Your task to perform on an android device: check battery use Image 0: 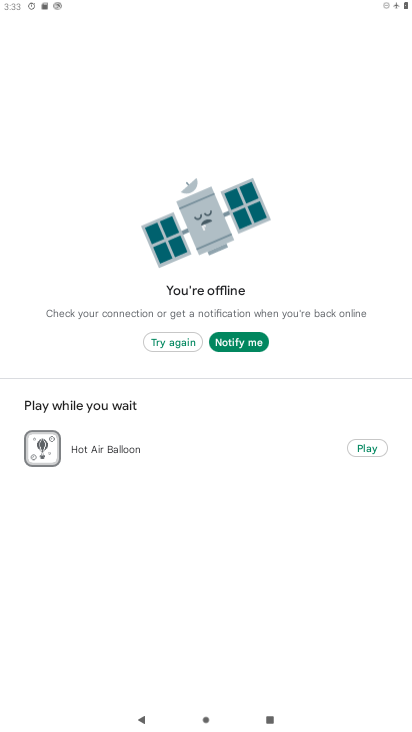
Step 0: press home button
Your task to perform on an android device: check battery use Image 1: 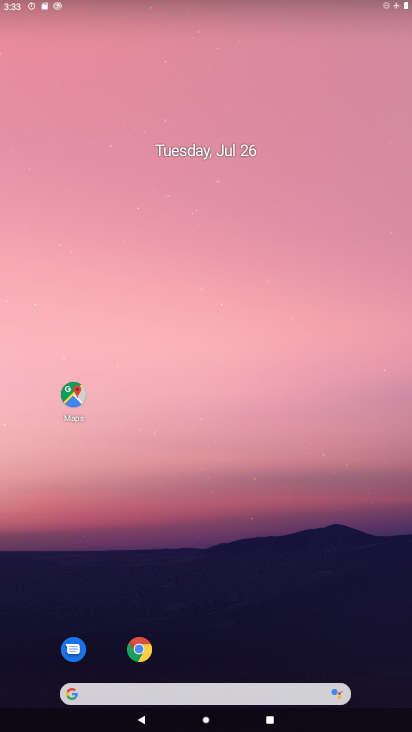
Step 1: drag from (350, 672) to (207, 143)
Your task to perform on an android device: check battery use Image 2: 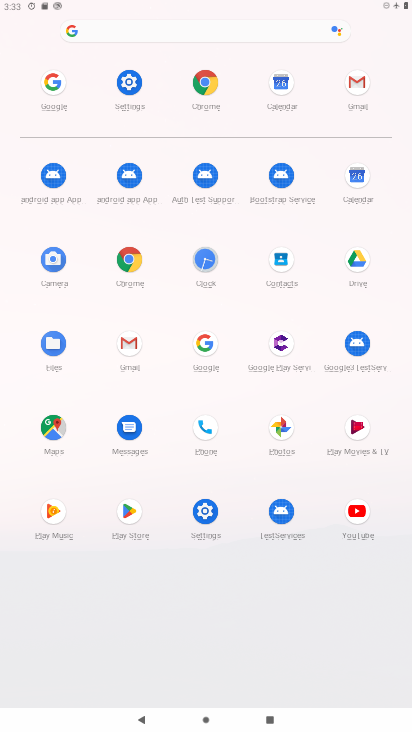
Step 2: click (118, 90)
Your task to perform on an android device: check battery use Image 3: 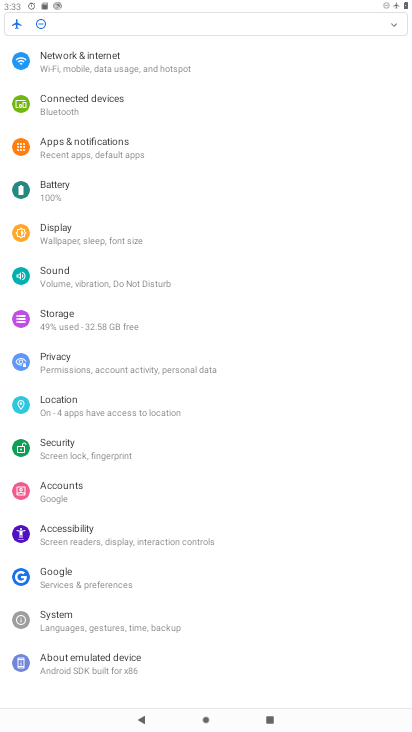
Step 3: click (92, 206)
Your task to perform on an android device: check battery use Image 4: 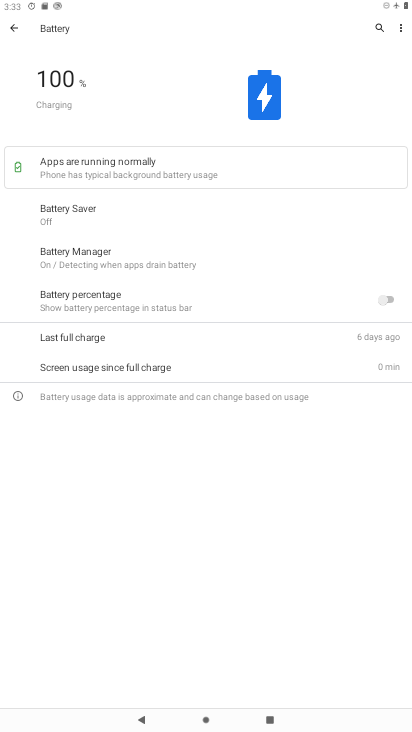
Step 4: click (398, 21)
Your task to perform on an android device: check battery use Image 5: 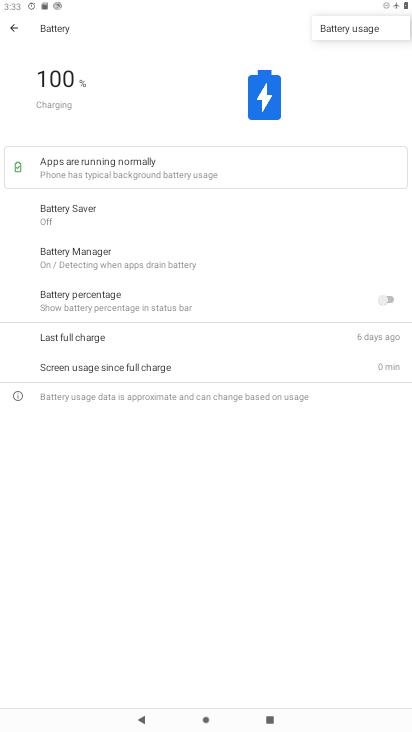
Step 5: click (345, 31)
Your task to perform on an android device: check battery use Image 6: 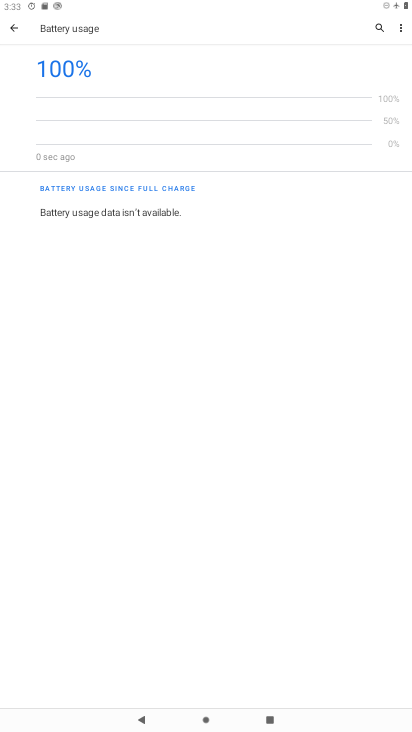
Step 6: task complete